Your task to perform on an android device: Open the stopwatch Image 0: 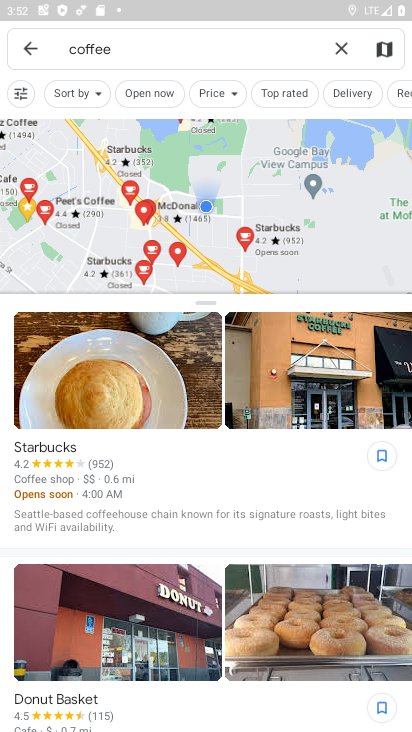
Step 0: press back button
Your task to perform on an android device: Open the stopwatch Image 1: 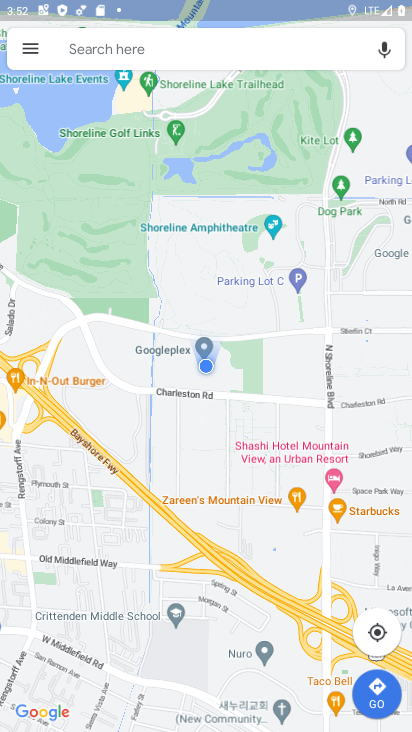
Step 1: press back button
Your task to perform on an android device: Open the stopwatch Image 2: 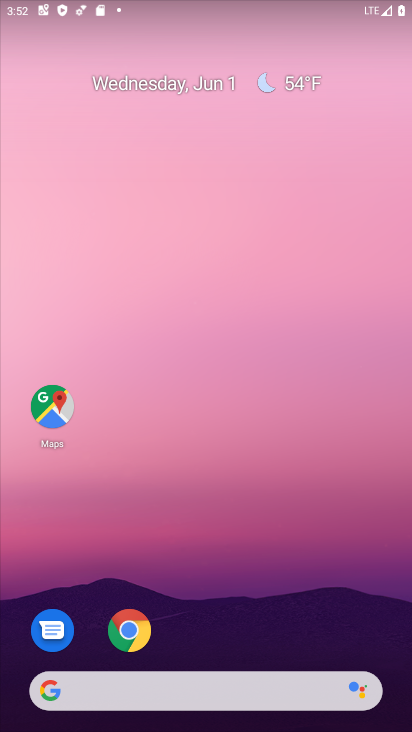
Step 2: drag from (283, 610) to (248, 0)
Your task to perform on an android device: Open the stopwatch Image 3: 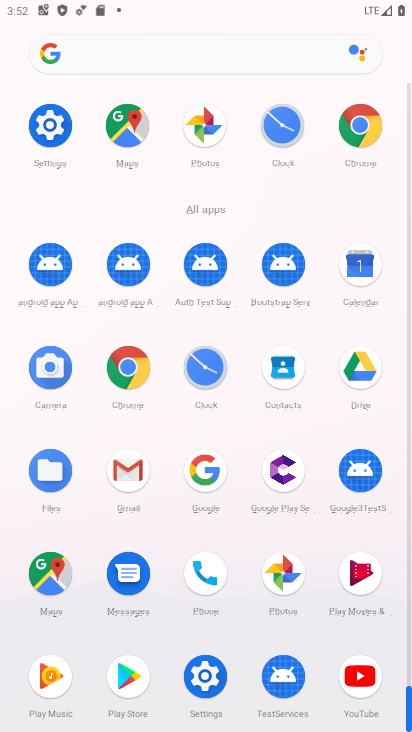
Step 3: drag from (0, 544) to (22, 233)
Your task to perform on an android device: Open the stopwatch Image 4: 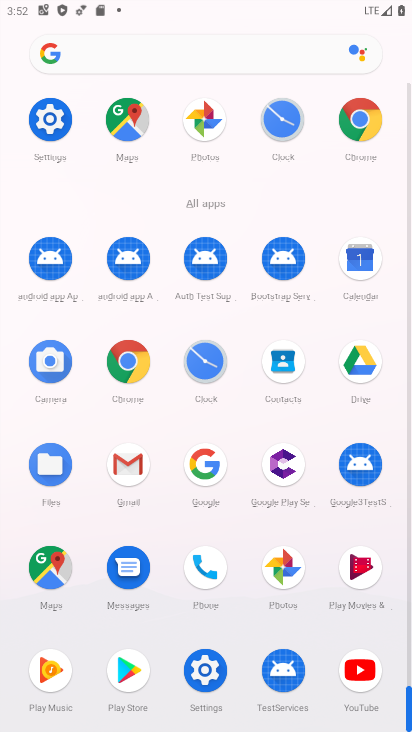
Step 4: click (205, 358)
Your task to perform on an android device: Open the stopwatch Image 5: 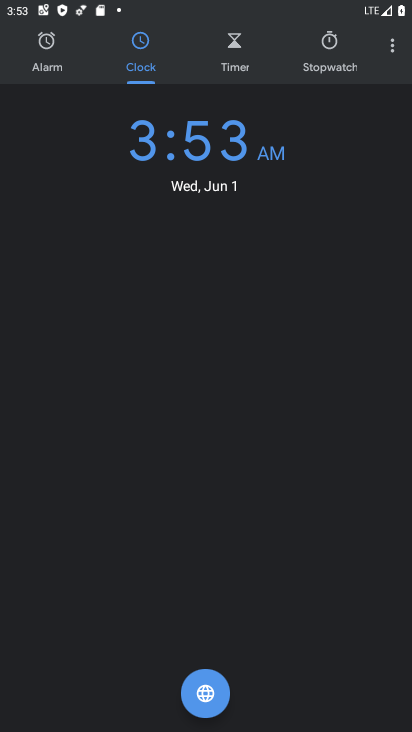
Step 5: click (334, 53)
Your task to perform on an android device: Open the stopwatch Image 6: 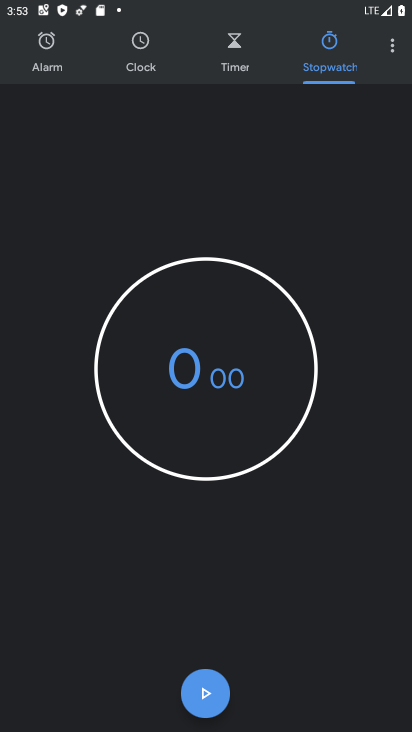
Step 6: task complete